Your task to perform on an android device: Go to battery settings Image 0: 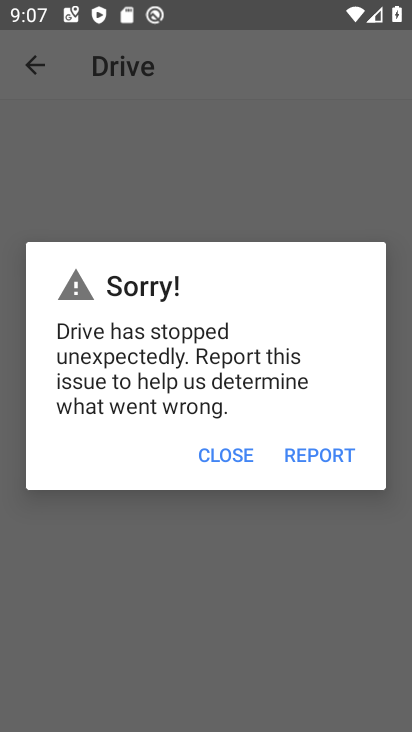
Step 0: press home button
Your task to perform on an android device: Go to battery settings Image 1: 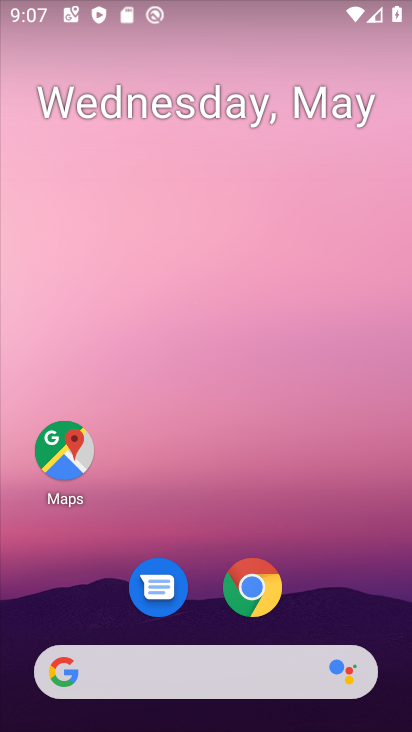
Step 1: drag from (229, 721) to (210, 178)
Your task to perform on an android device: Go to battery settings Image 2: 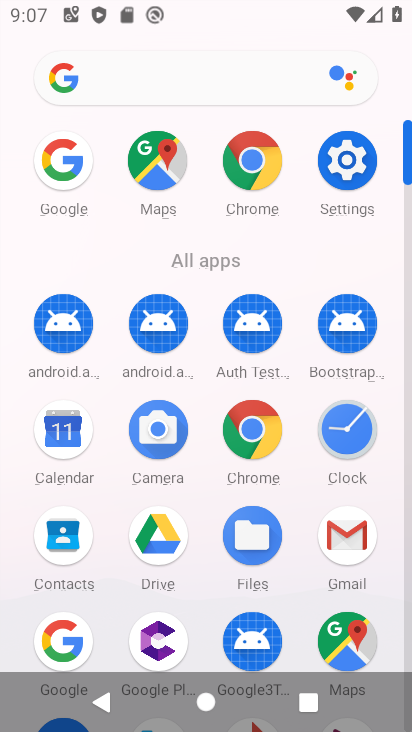
Step 2: click (348, 154)
Your task to perform on an android device: Go to battery settings Image 3: 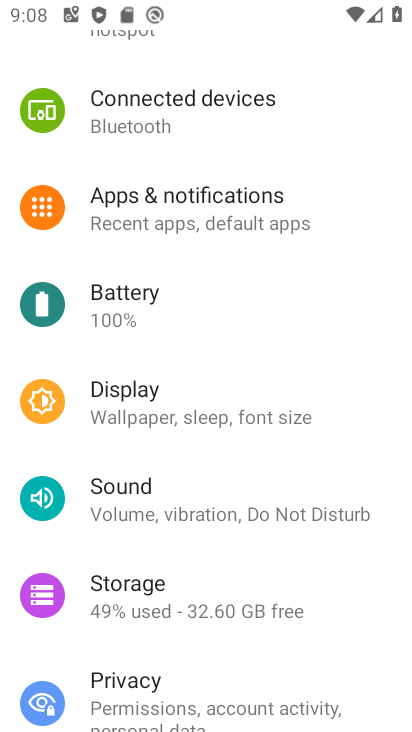
Step 3: click (124, 304)
Your task to perform on an android device: Go to battery settings Image 4: 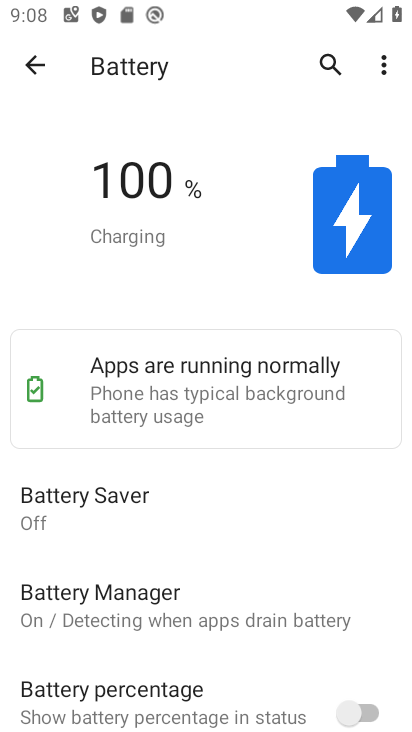
Step 4: task complete